Your task to perform on an android device: Search for Mexican restaurants on Maps Image 0: 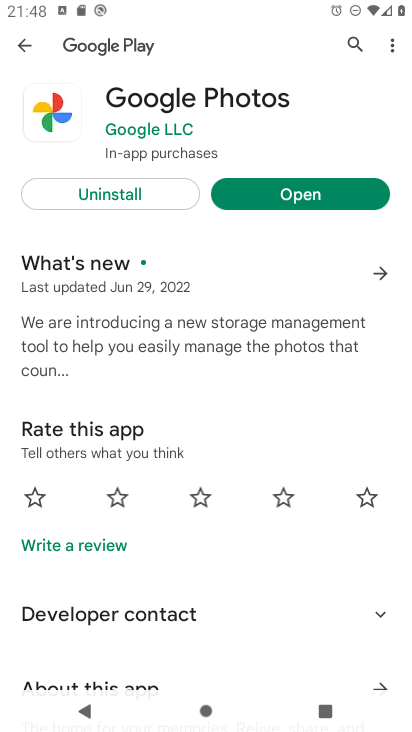
Step 0: press home button
Your task to perform on an android device: Search for Mexican restaurants on Maps Image 1: 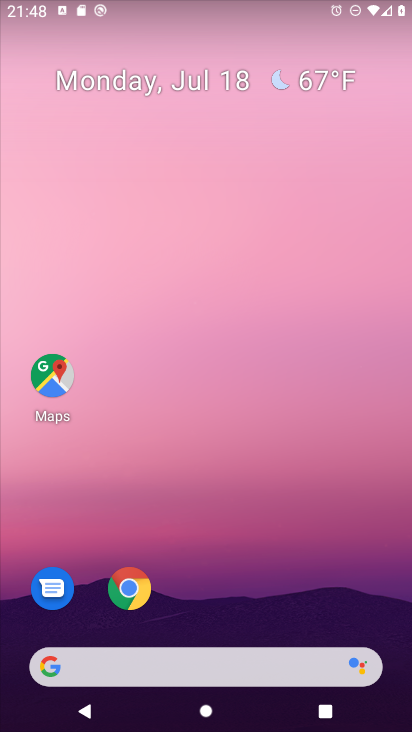
Step 1: click (51, 375)
Your task to perform on an android device: Search for Mexican restaurants on Maps Image 2: 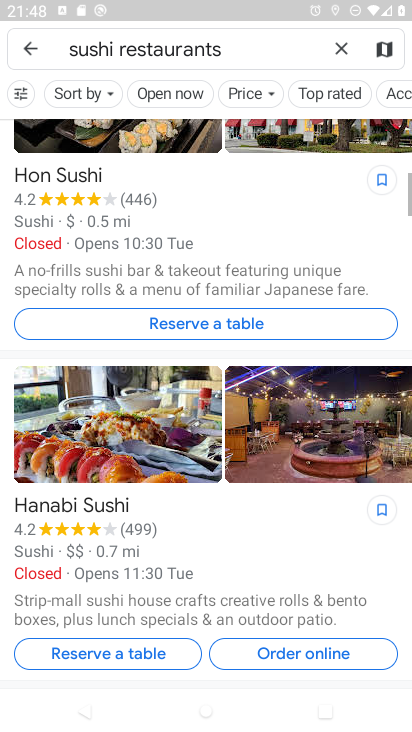
Step 2: click (334, 50)
Your task to perform on an android device: Search for Mexican restaurants on Maps Image 3: 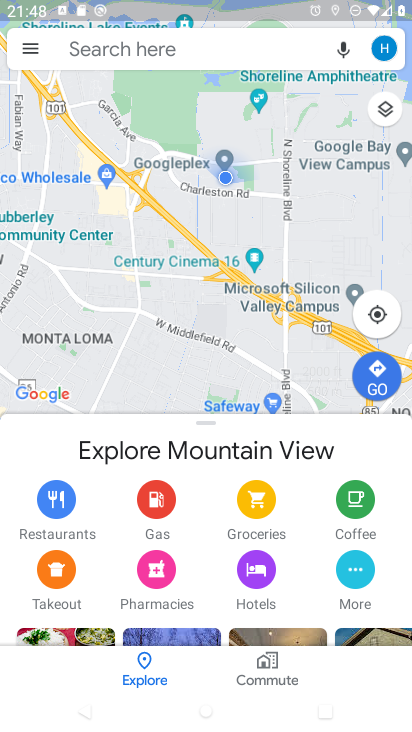
Step 3: click (130, 54)
Your task to perform on an android device: Search for Mexican restaurants on Maps Image 4: 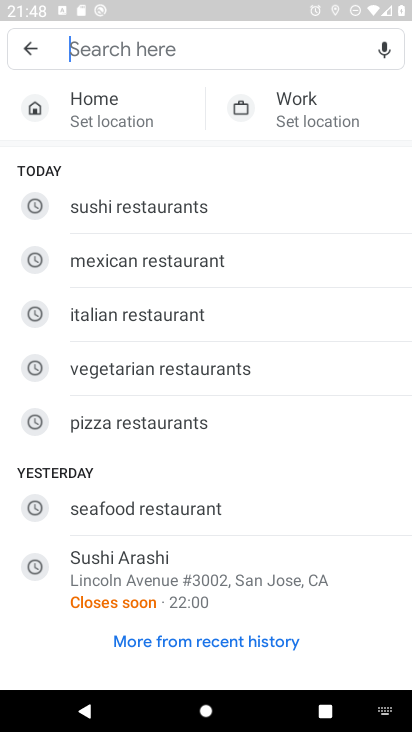
Step 4: type "mexican restaurants"
Your task to perform on an android device: Search for Mexican restaurants on Maps Image 5: 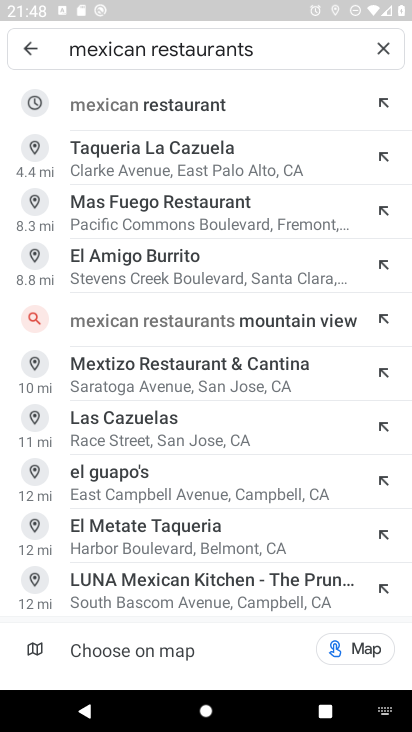
Step 5: click (163, 111)
Your task to perform on an android device: Search for Mexican restaurants on Maps Image 6: 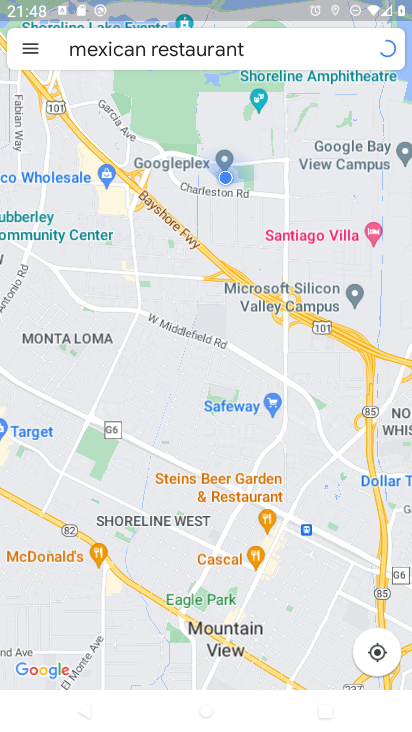
Step 6: task complete